Your task to perform on an android device: What's on my calendar today? Image 0: 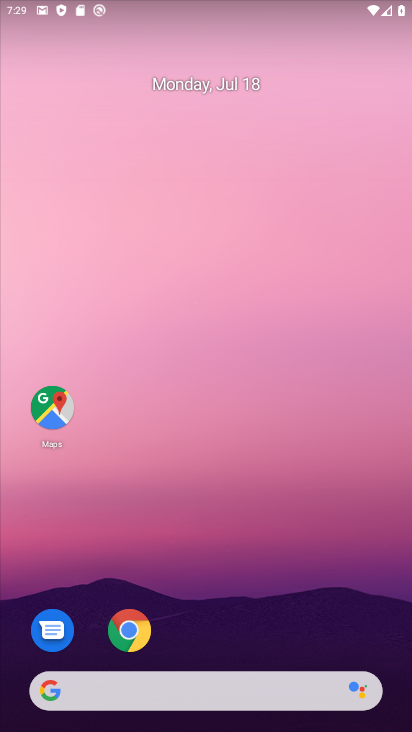
Step 0: drag from (260, 699) to (303, 29)
Your task to perform on an android device: What's on my calendar today? Image 1: 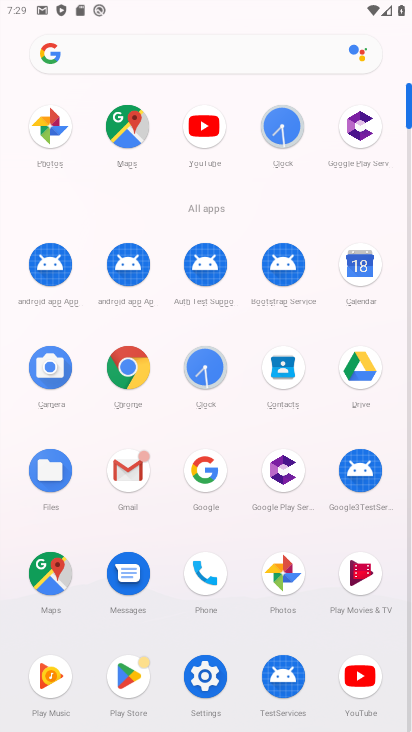
Step 1: click (367, 248)
Your task to perform on an android device: What's on my calendar today? Image 2: 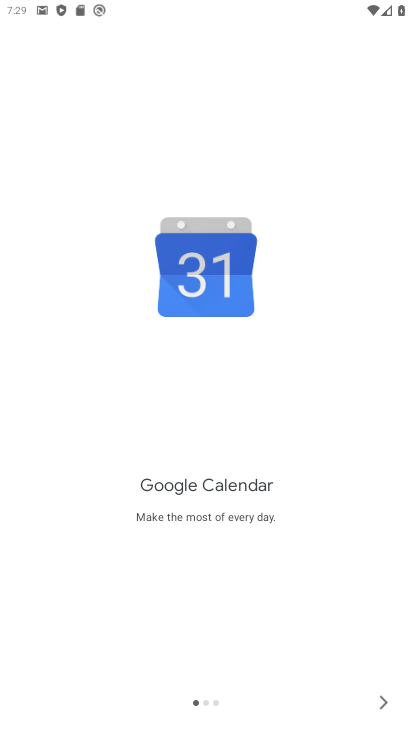
Step 2: click (372, 684)
Your task to perform on an android device: What's on my calendar today? Image 3: 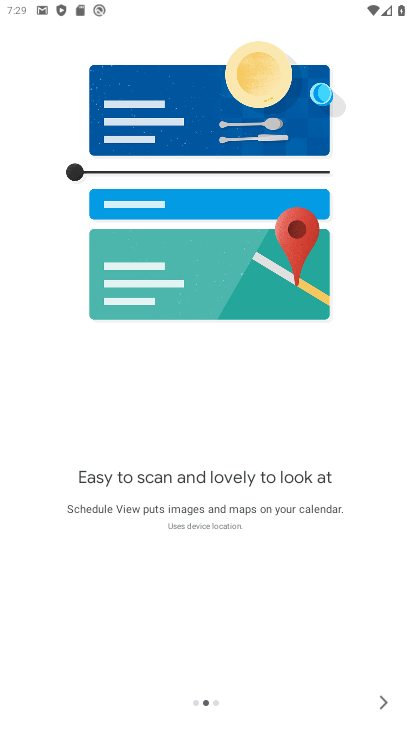
Step 3: click (393, 702)
Your task to perform on an android device: What's on my calendar today? Image 4: 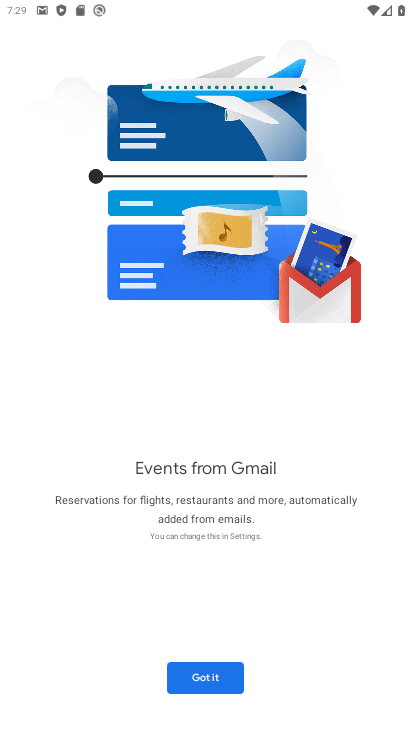
Step 4: click (207, 670)
Your task to perform on an android device: What's on my calendar today? Image 5: 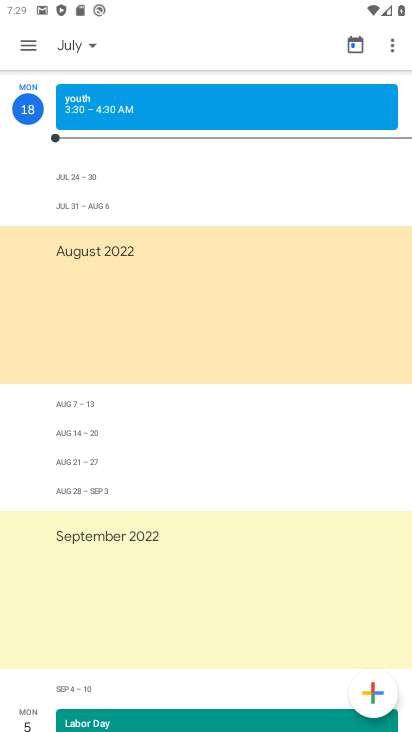
Step 5: click (186, 517)
Your task to perform on an android device: What's on my calendar today? Image 6: 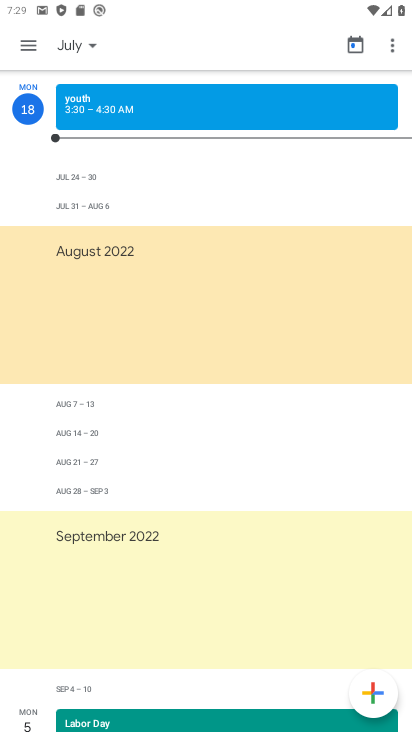
Step 6: click (56, 108)
Your task to perform on an android device: What's on my calendar today? Image 7: 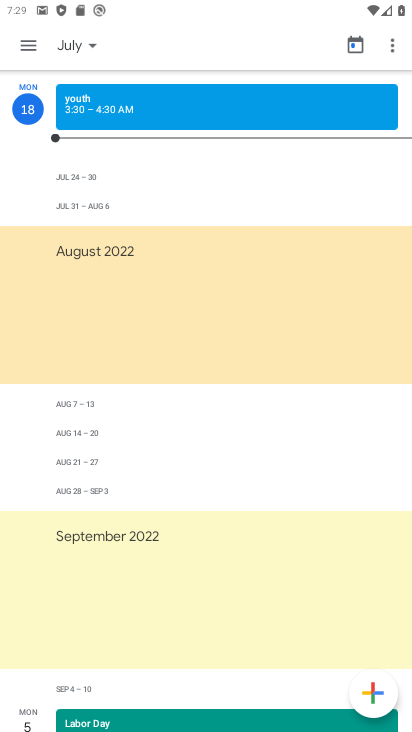
Step 7: click (56, 108)
Your task to perform on an android device: What's on my calendar today? Image 8: 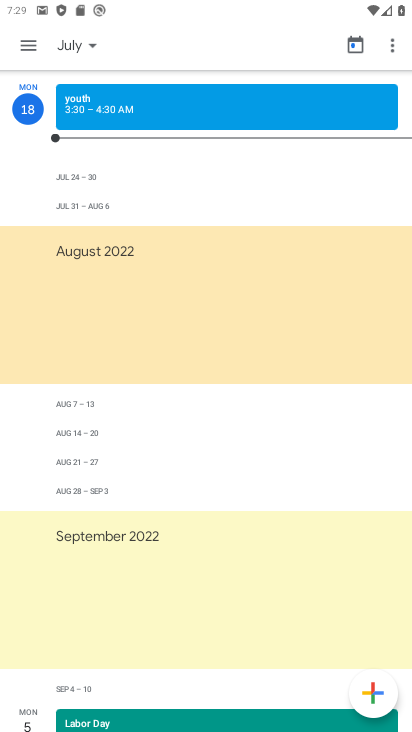
Step 8: click (26, 52)
Your task to perform on an android device: What's on my calendar today? Image 9: 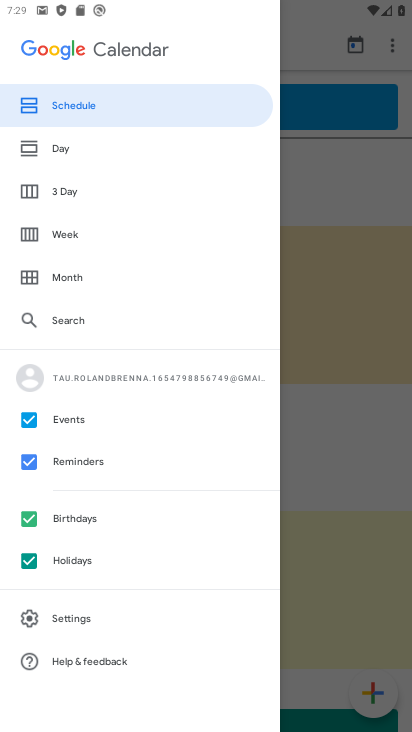
Step 9: click (85, 272)
Your task to perform on an android device: What's on my calendar today? Image 10: 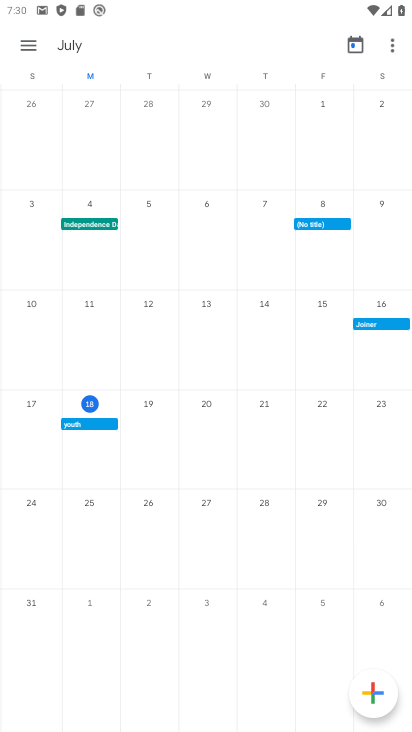
Step 10: click (150, 434)
Your task to perform on an android device: What's on my calendar today? Image 11: 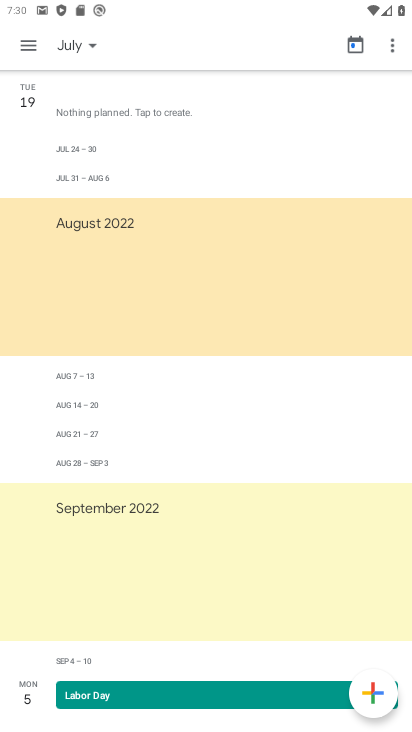
Step 11: task complete